Your task to perform on an android device: turn off airplane mode Image 0: 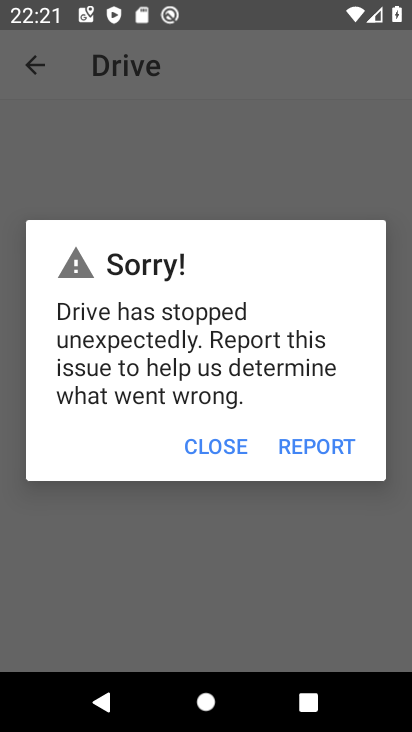
Step 0: press home button
Your task to perform on an android device: turn off airplane mode Image 1: 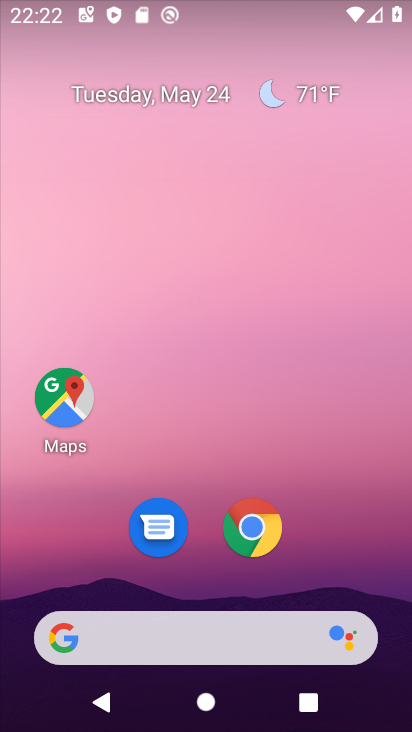
Step 1: drag from (320, 577) to (305, 35)
Your task to perform on an android device: turn off airplane mode Image 2: 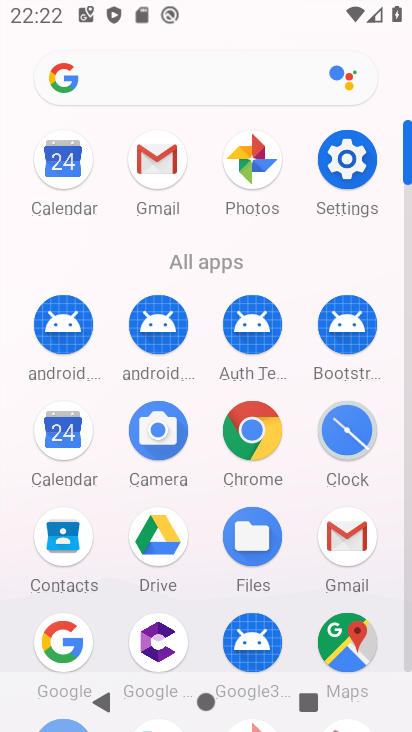
Step 2: click (343, 154)
Your task to perform on an android device: turn off airplane mode Image 3: 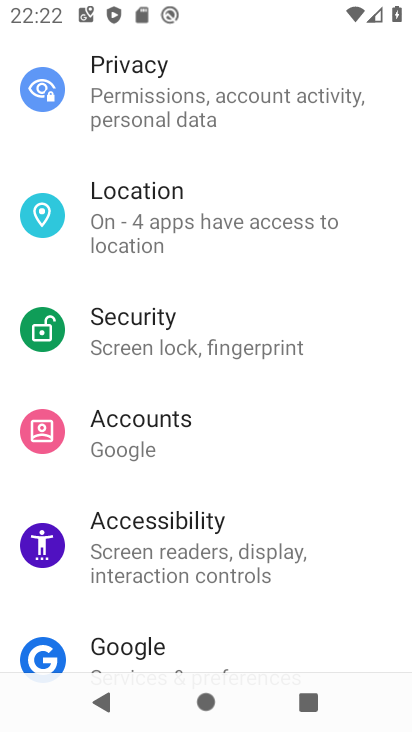
Step 3: drag from (226, 215) to (220, 571)
Your task to perform on an android device: turn off airplane mode Image 4: 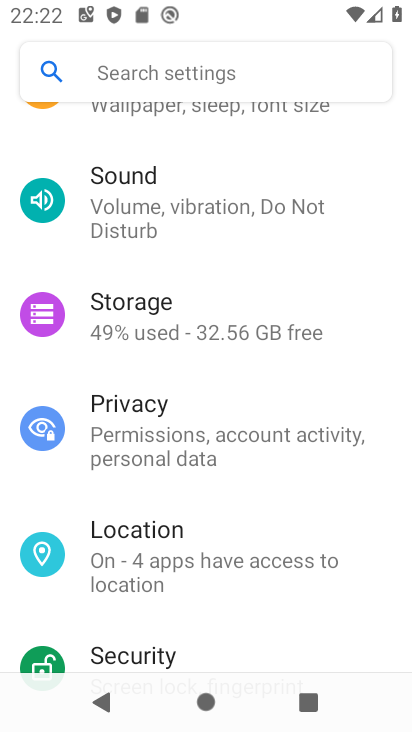
Step 4: drag from (181, 316) to (197, 551)
Your task to perform on an android device: turn off airplane mode Image 5: 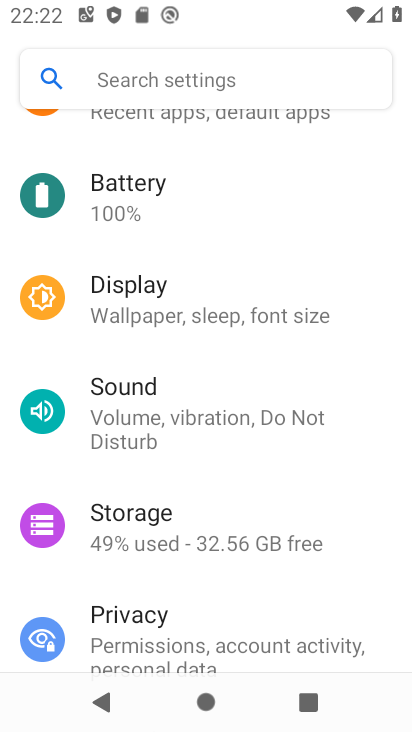
Step 5: drag from (183, 232) to (258, 582)
Your task to perform on an android device: turn off airplane mode Image 6: 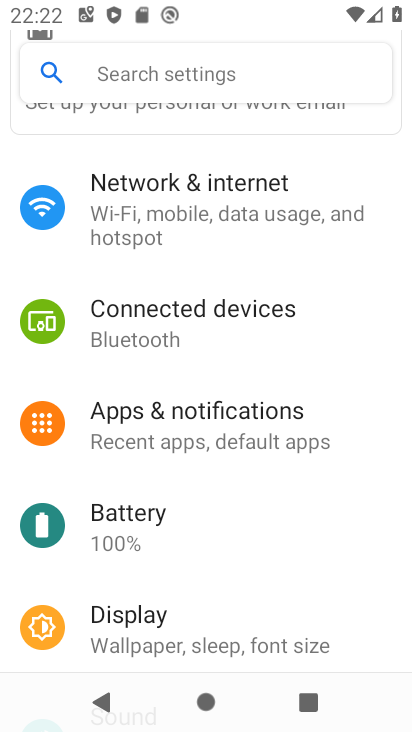
Step 6: click (243, 205)
Your task to perform on an android device: turn off airplane mode Image 7: 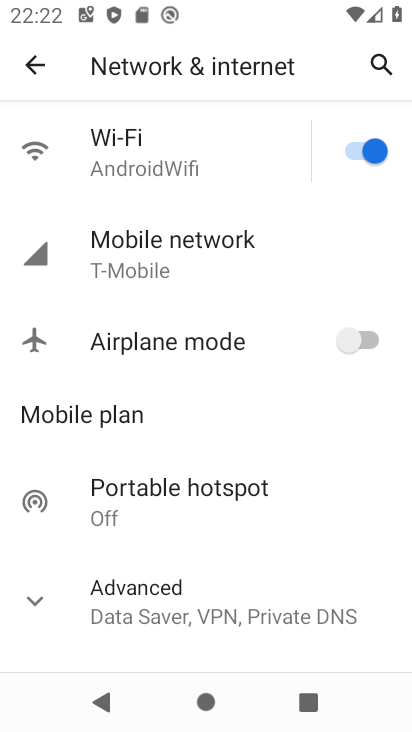
Step 7: task complete